Your task to perform on an android device: Open accessibility settings Image 0: 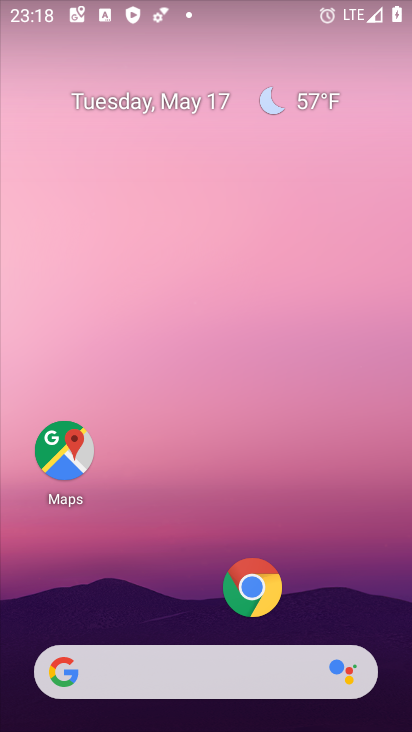
Step 0: task complete